Your task to perform on an android device: Open Maps and search for coffee Image 0: 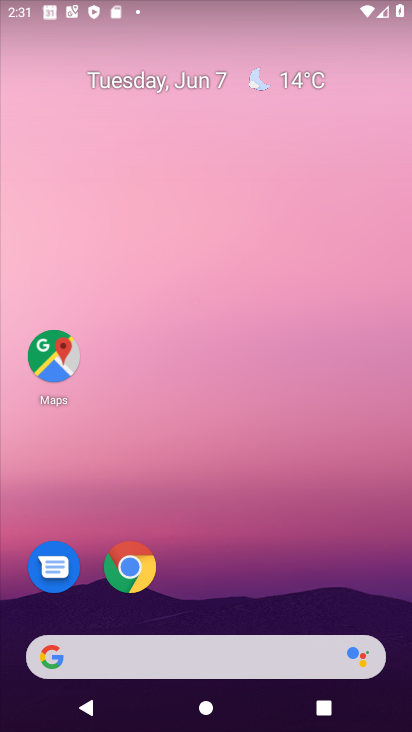
Step 0: click (70, 356)
Your task to perform on an android device: Open Maps and search for coffee Image 1: 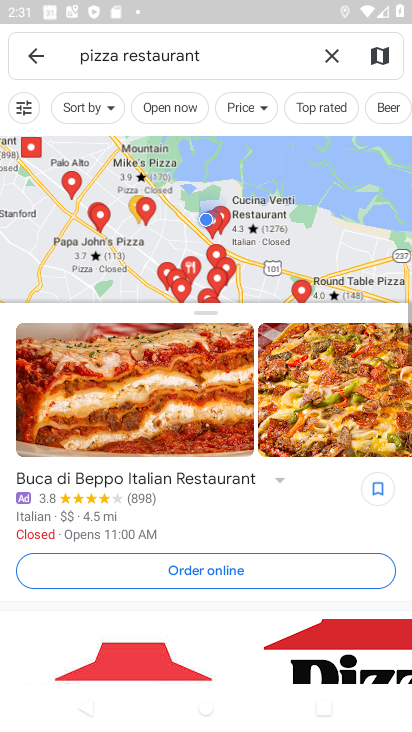
Step 1: click (335, 61)
Your task to perform on an android device: Open Maps and search for coffee Image 2: 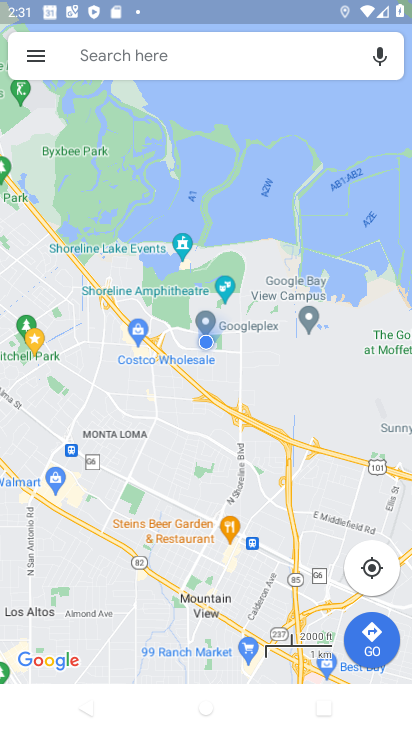
Step 2: click (258, 52)
Your task to perform on an android device: Open Maps and search for coffee Image 3: 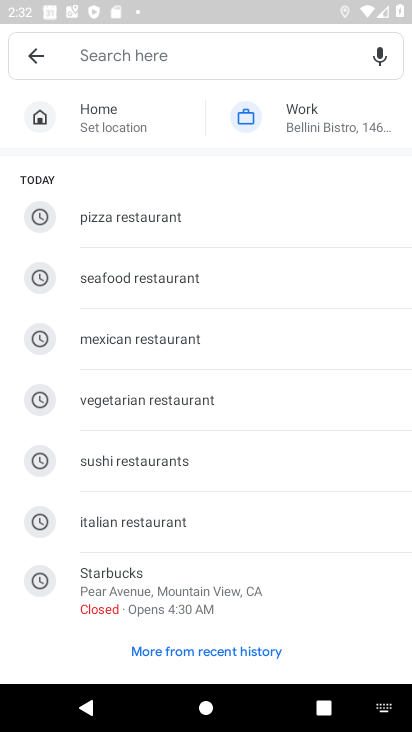
Step 3: type "coffee"
Your task to perform on an android device: Open Maps and search for coffee Image 4: 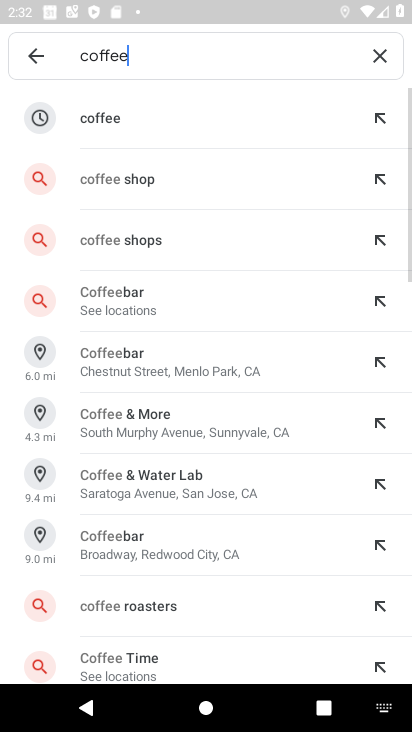
Step 4: click (107, 136)
Your task to perform on an android device: Open Maps and search for coffee Image 5: 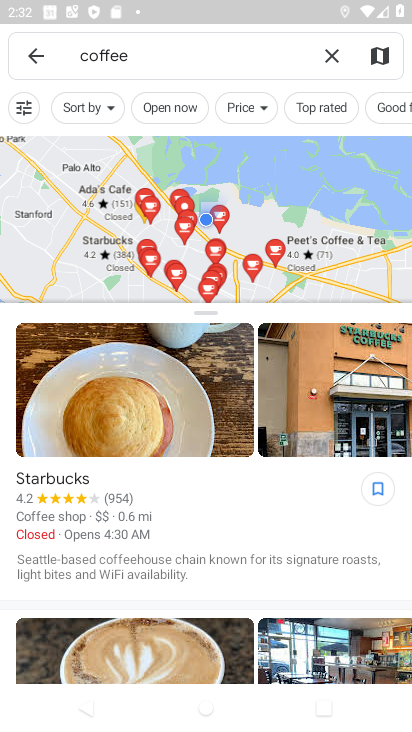
Step 5: task complete